Your task to perform on an android device: Check the weather Image 0: 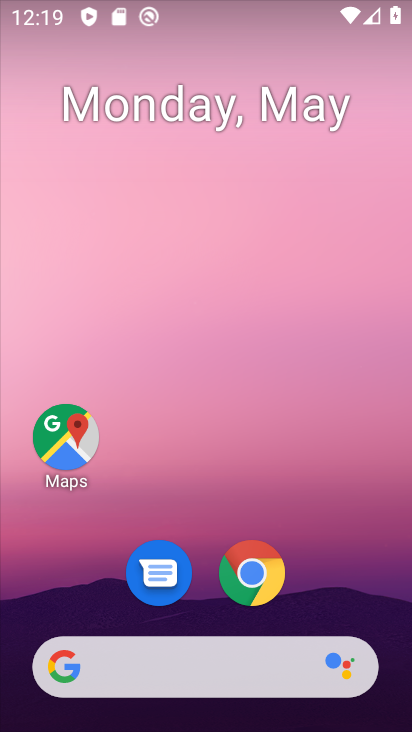
Step 0: click (208, 674)
Your task to perform on an android device: Check the weather Image 1: 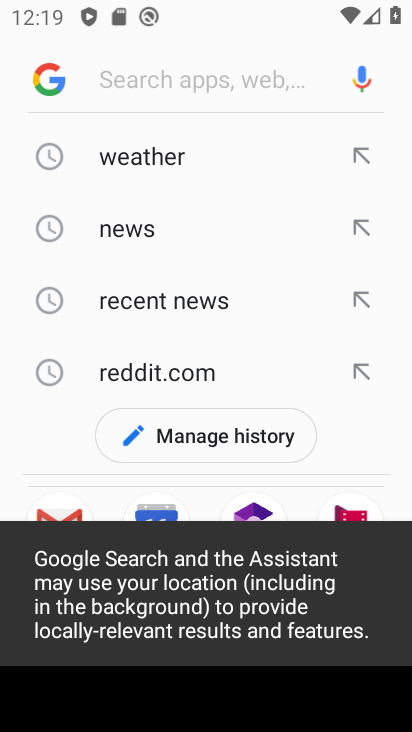
Step 1: click (224, 172)
Your task to perform on an android device: Check the weather Image 2: 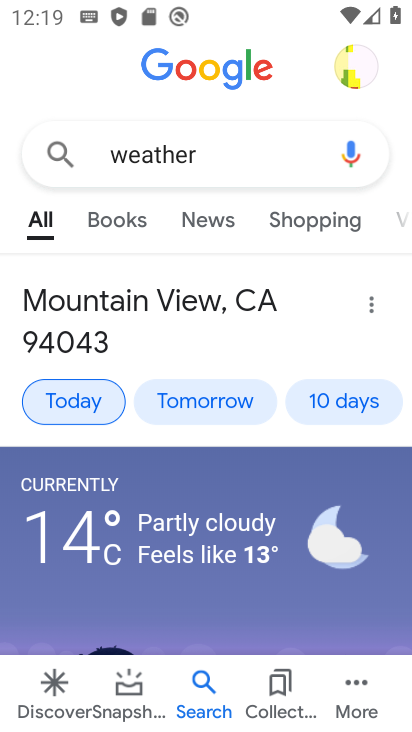
Step 2: task complete